Your task to perform on an android device: Open settings Image 0: 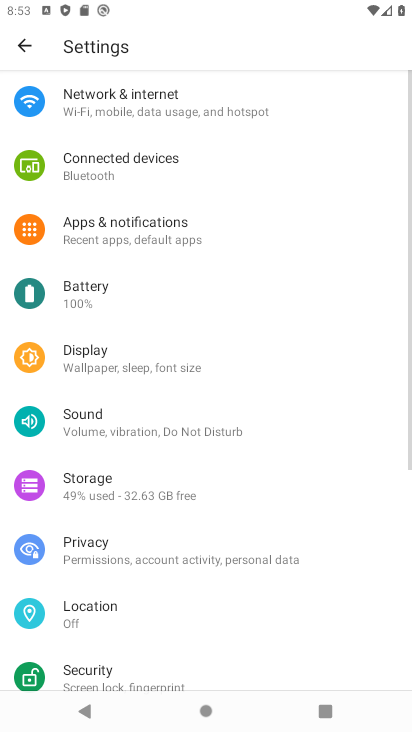
Step 0: press home button
Your task to perform on an android device: Open settings Image 1: 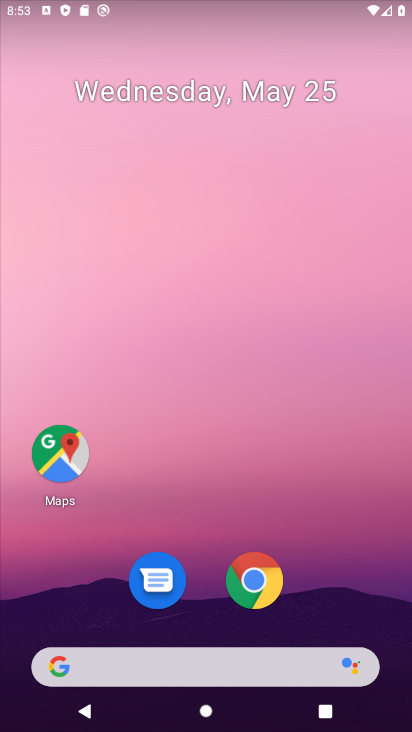
Step 1: drag from (15, 635) to (328, 97)
Your task to perform on an android device: Open settings Image 2: 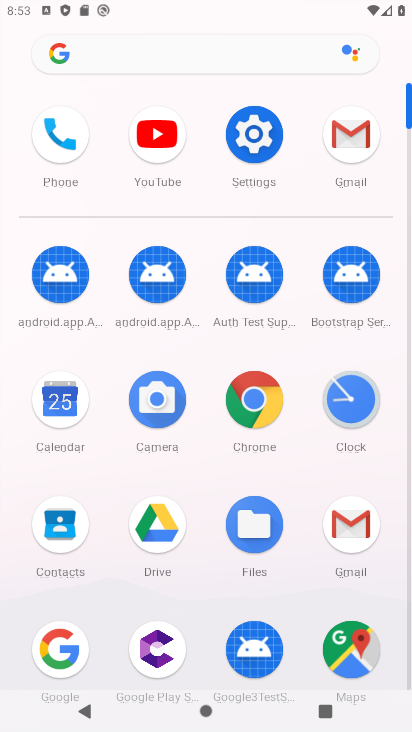
Step 2: click (257, 120)
Your task to perform on an android device: Open settings Image 3: 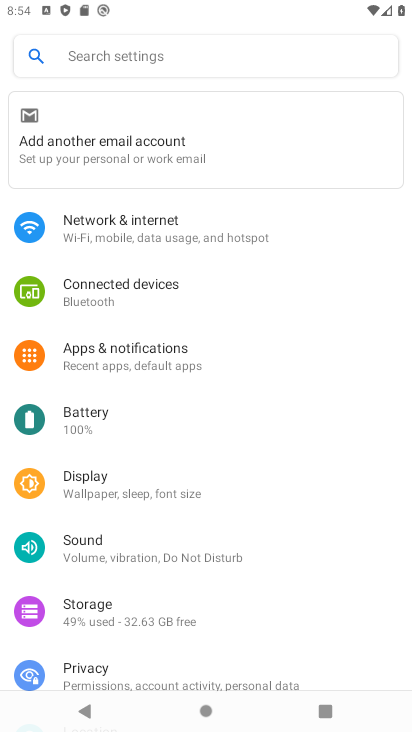
Step 3: task complete